Your task to perform on an android device: open chrome privacy settings Image 0: 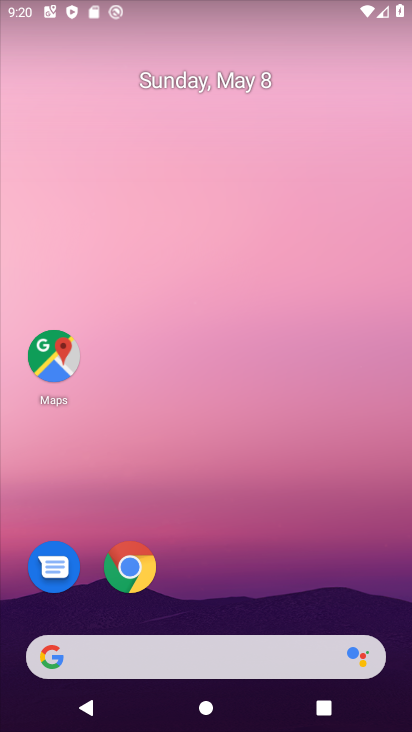
Step 0: drag from (345, 588) to (187, 12)
Your task to perform on an android device: open chrome privacy settings Image 1: 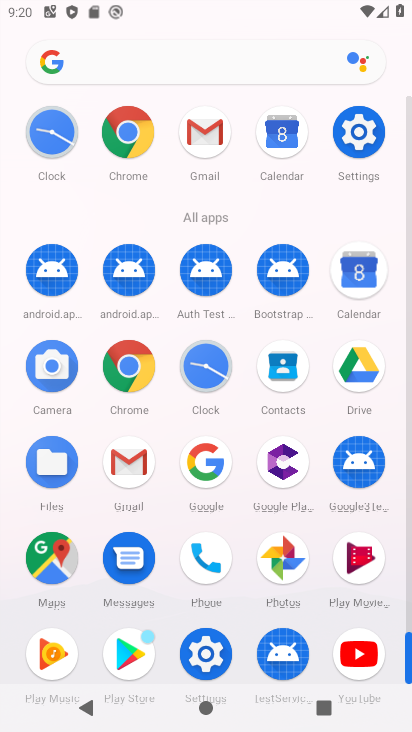
Step 1: click (126, 378)
Your task to perform on an android device: open chrome privacy settings Image 2: 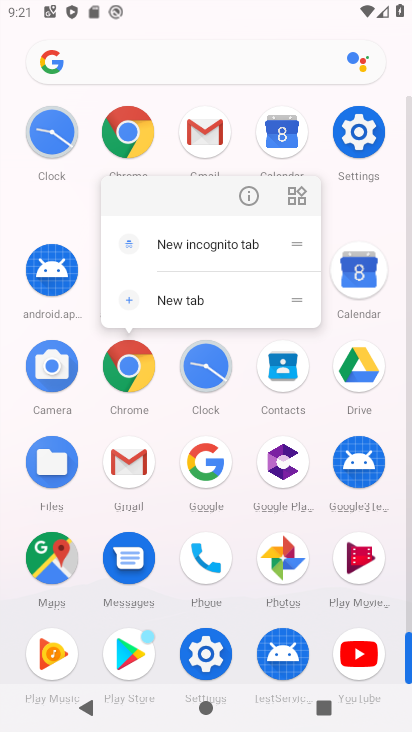
Step 2: click (127, 353)
Your task to perform on an android device: open chrome privacy settings Image 3: 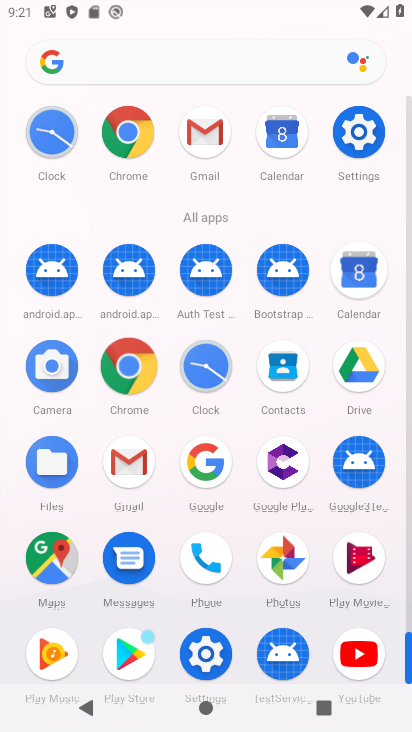
Step 3: click (127, 354)
Your task to perform on an android device: open chrome privacy settings Image 4: 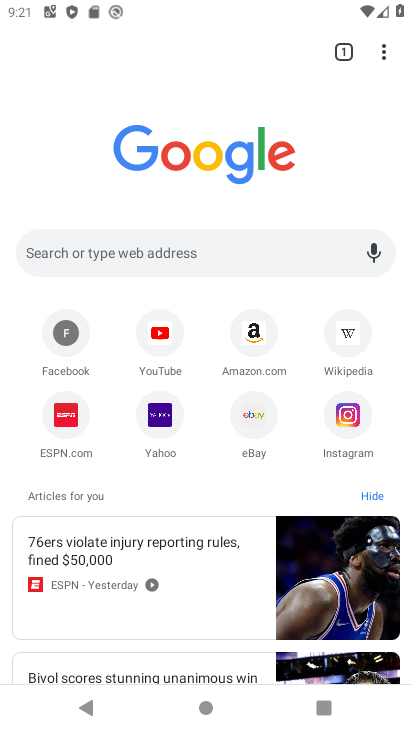
Step 4: drag from (381, 57) to (208, 437)
Your task to perform on an android device: open chrome privacy settings Image 5: 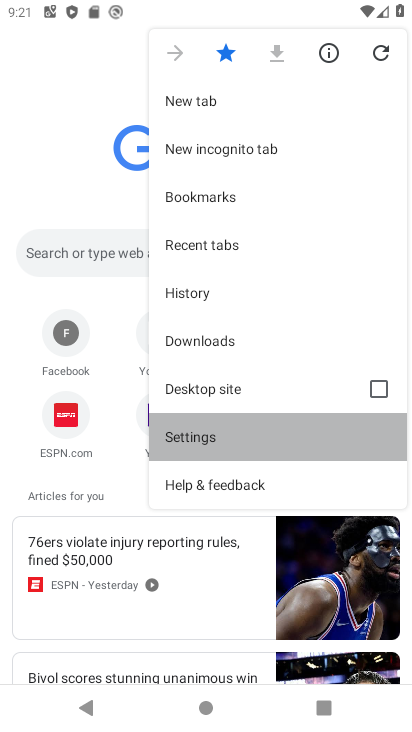
Step 5: click (204, 437)
Your task to perform on an android device: open chrome privacy settings Image 6: 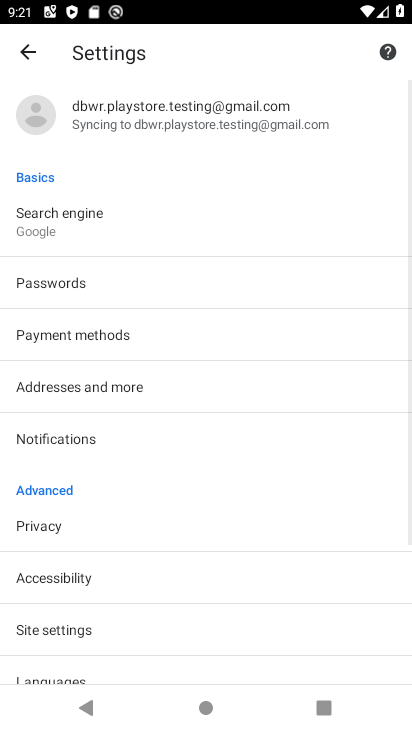
Step 6: drag from (140, 526) to (135, 239)
Your task to perform on an android device: open chrome privacy settings Image 7: 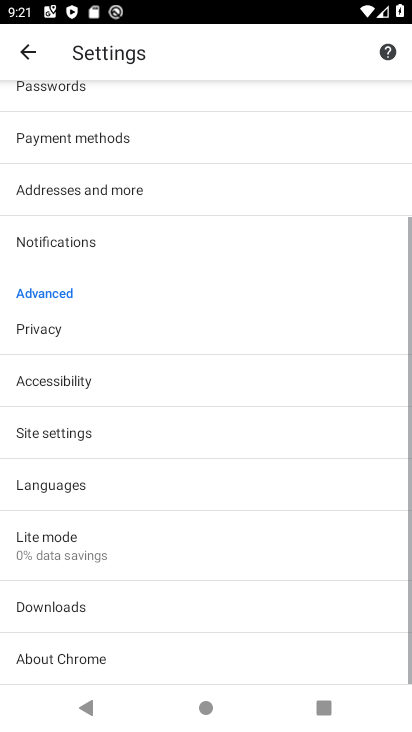
Step 7: drag from (138, 447) to (150, 146)
Your task to perform on an android device: open chrome privacy settings Image 8: 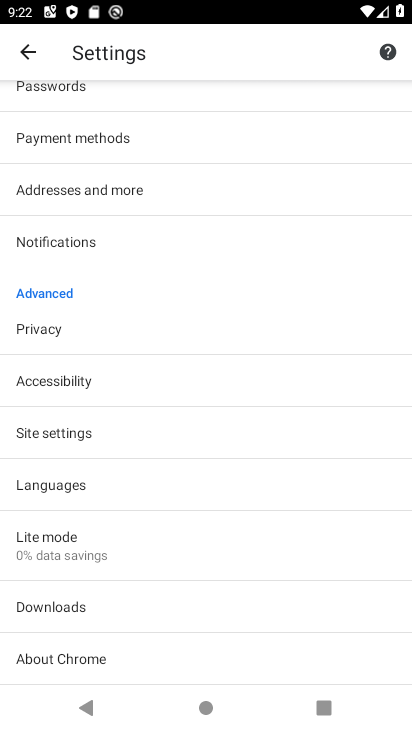
Step 8: click (51, 327)
Your task to perform on an android device: open chrome privacy settings Image 9: 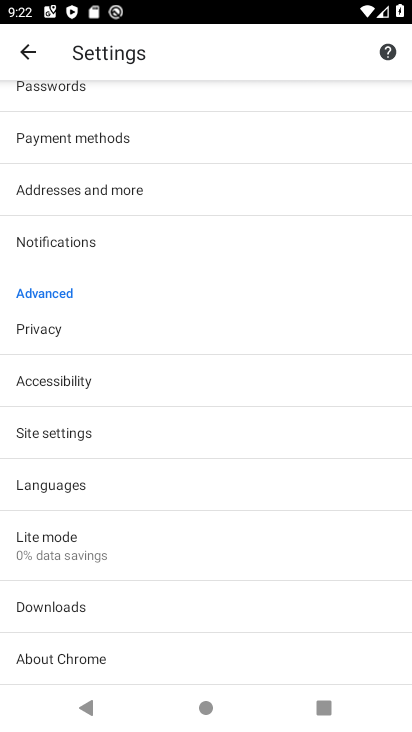
Step 9: click (51, 327)
Your task to perform on an android device: open chrome privacy settings Image 10: 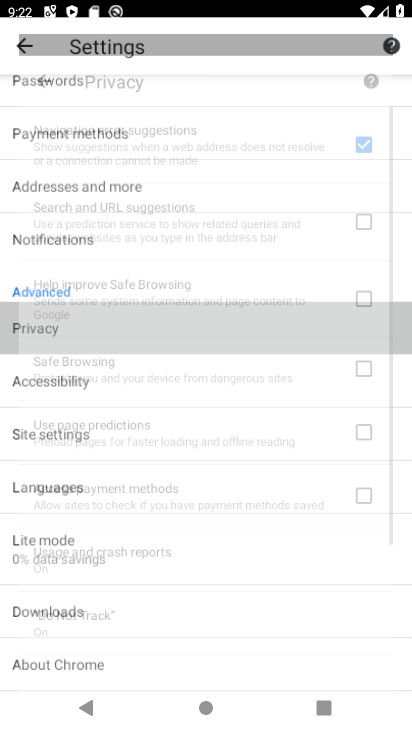
Step 10: click (51, 327)
Your task to perform on an android device: open chrome privacy settings Image 11: 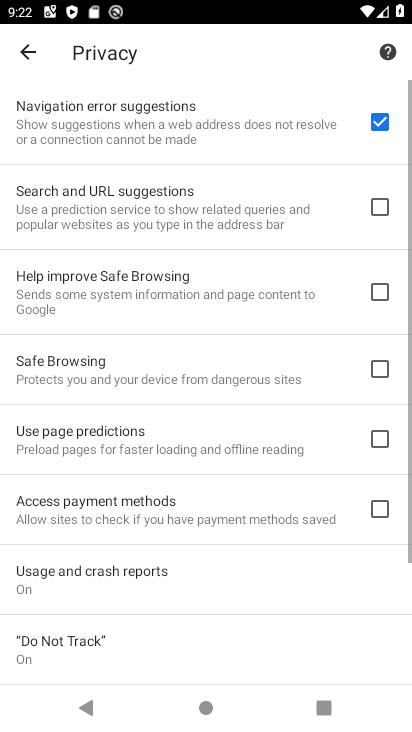
Step 11: click (51, 327)
Your task to perform on an android device: open chrome privacy settings Image 12: 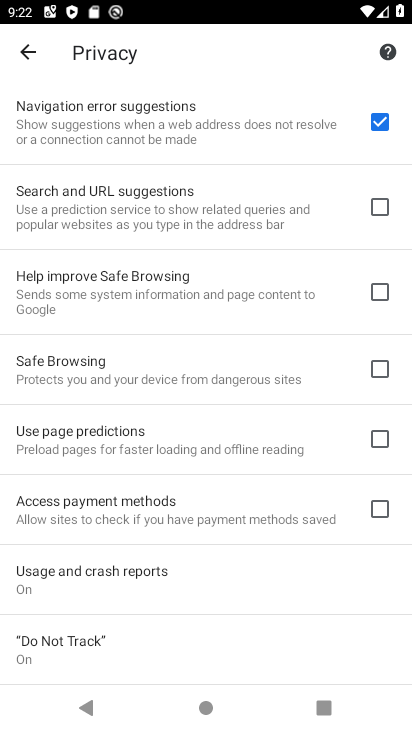
Step 12: drag from (181, 458) to (145, 226)
Your task to perform on an android device: open chrome privacy settings Image 13: 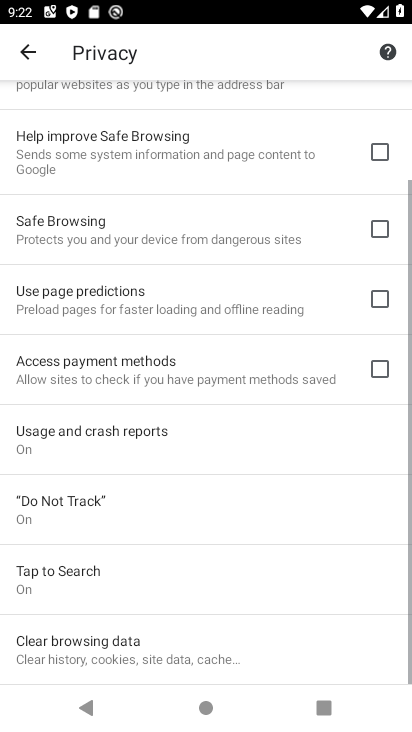
Step 13: drag from (236, 347) to (200, 66)
Your task to perform on an android device: open chrome privacy settings Image 14: 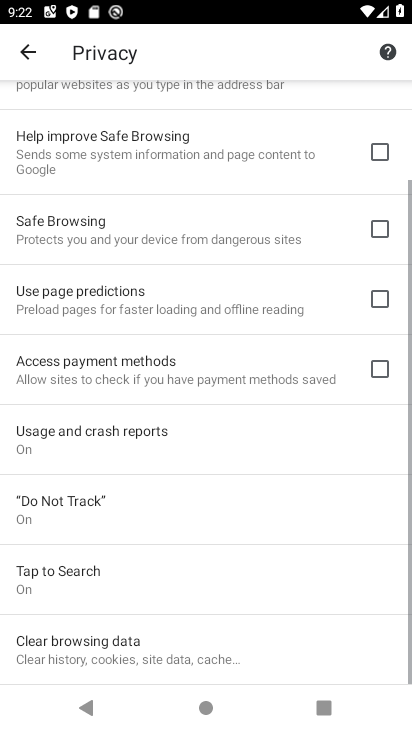
Step 14: drag from (190, 250) to (215, 529)
Your task to perform on an android device: open chrome privacy settings Image 15: 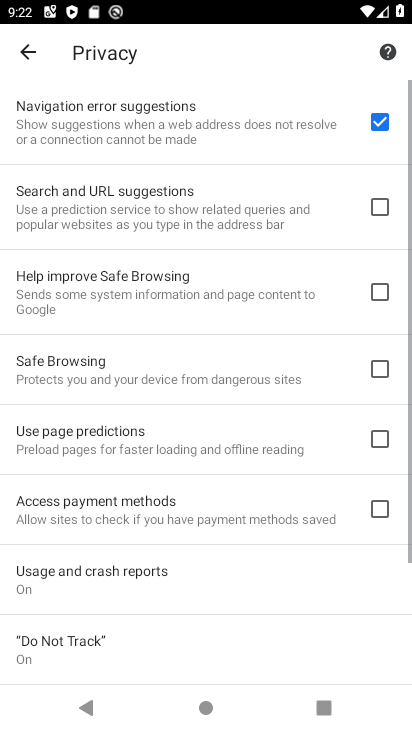
Step 15: drag from (184, 256) to (212, 530)
Your task to perform on an android device: open chrome privacy settings Image 16: 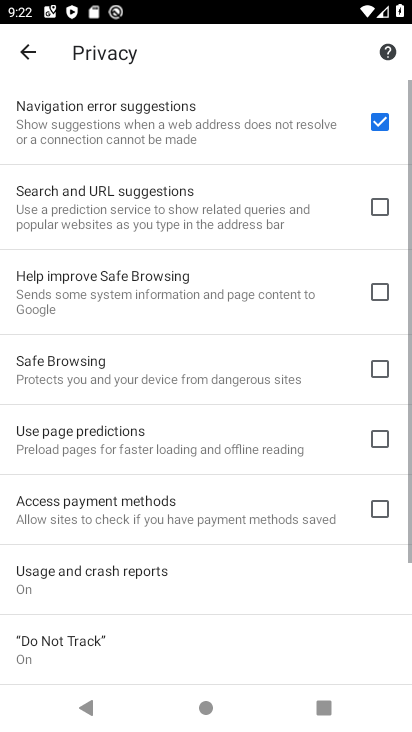
Step 16: click (192, 305)
Your task to perform on an android device: open chrome privacy settings Image 17: 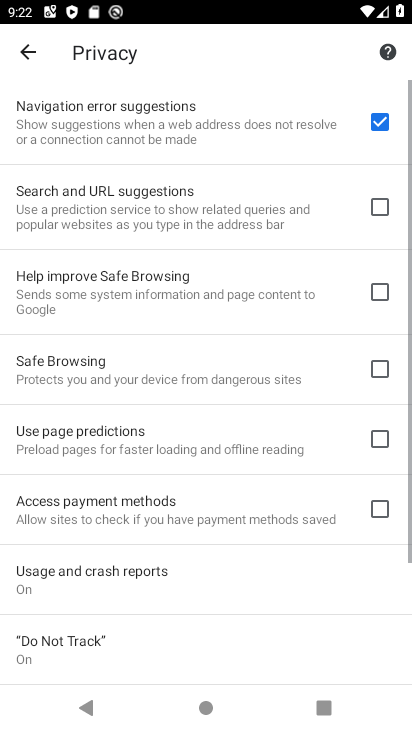
Step 17: task complete